Your task to perform on an android device: turn on priority inbox in the gmail app Image 0: 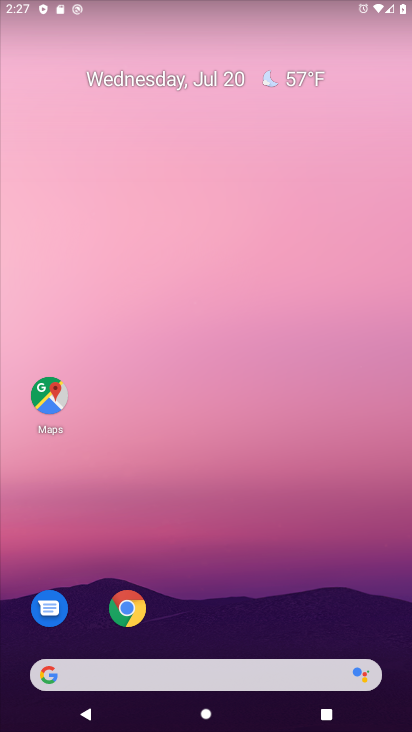
Step 0: drag from (241, 635) to (288, 33)
Your task to perform on an android device: turn on priority inbox in the gmail app Image 1: 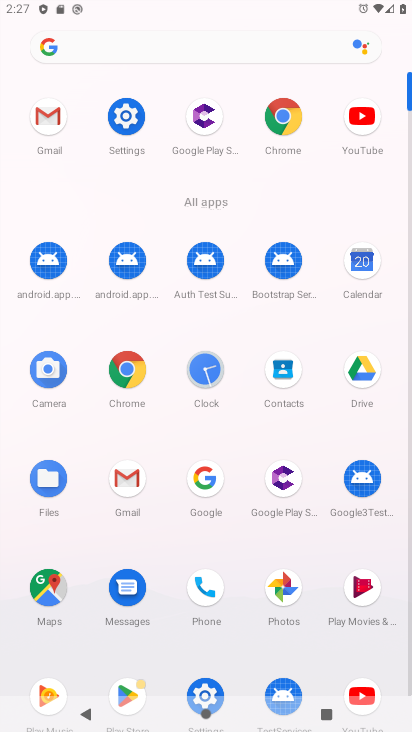
Step 1: click (126, 487)
Your task to perform on an android device: turn on priority inbox in the gmail app Image 2: 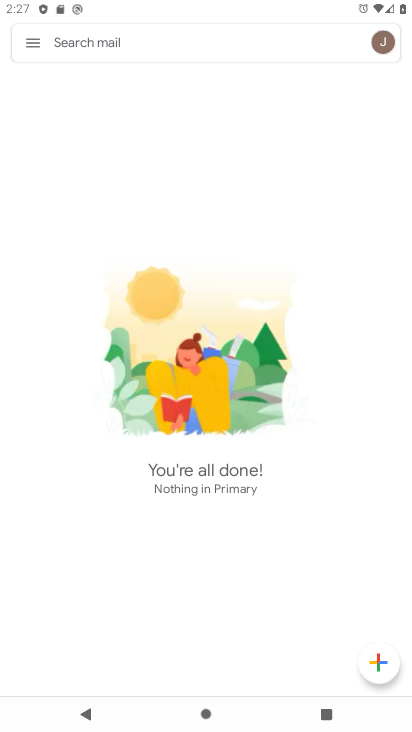
Step 2: click (37, 38)
Your task to perform on an android device: turn on priority inbox in the gmail app Image 3: 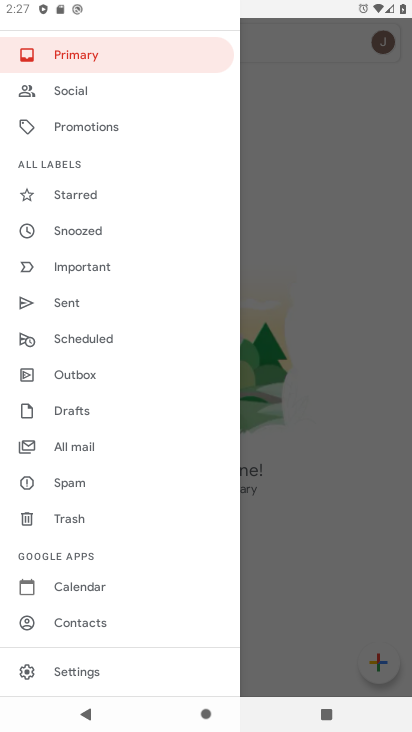
Step 3: click (94, 668)
Your task to perform on an android device: turn on priority inbox in the gmail app Image 4: 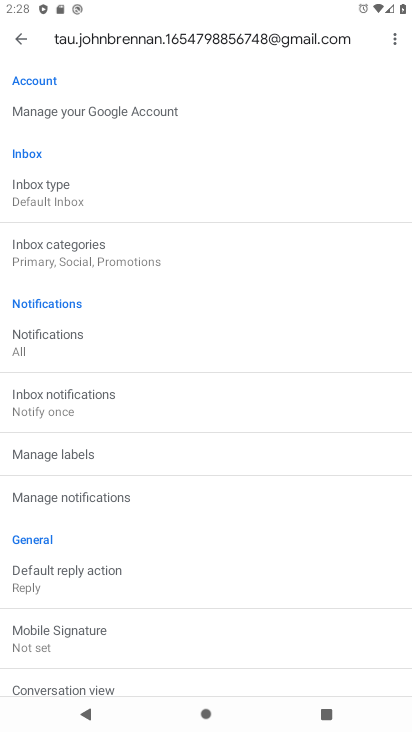
Step 4: click (81, 186)
Your task to perform on an android device: turn on priority inbox in the gmail app Image 5: 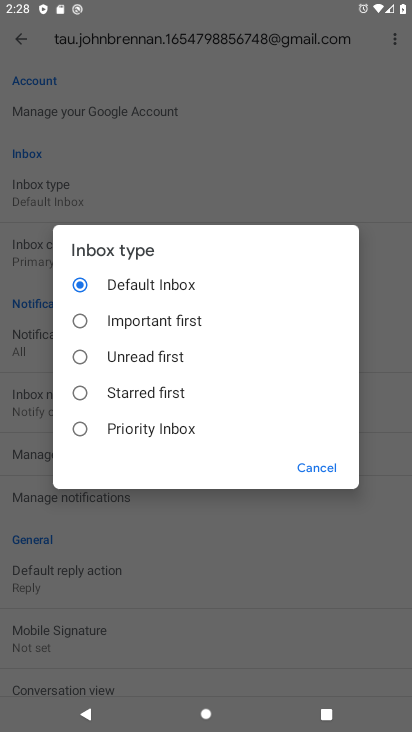
Step 5: click (78, 427)
Your task to perform on an android device: turn on priority inbox in the gmail app Image 6: 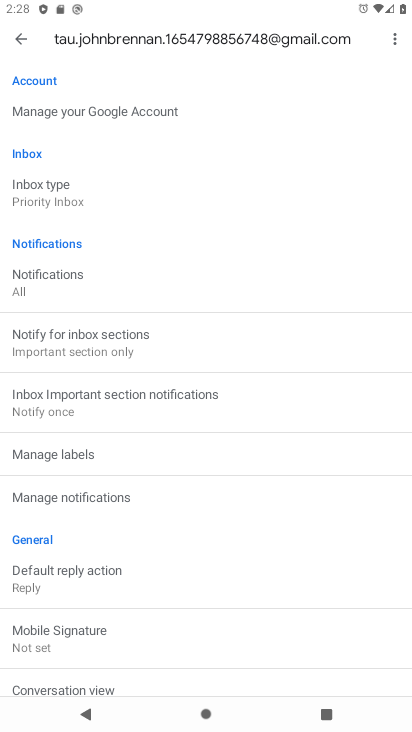
Step 6: task complete